Your task to perform on an android device: Open Youtube and go to the subscriptions tab Image 0: 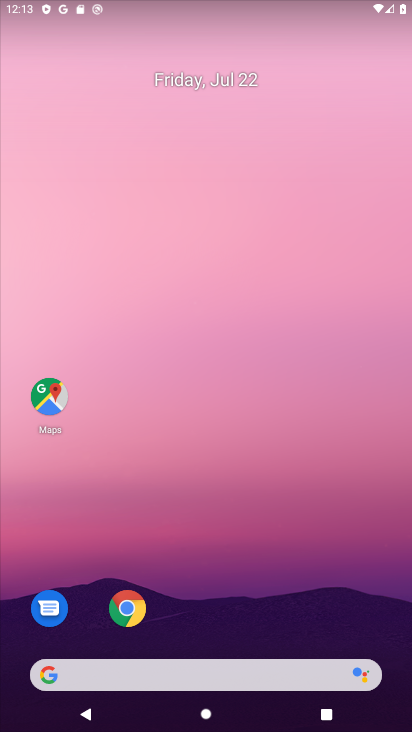
Step 0: press home button
Your task to perform on an android device: Open Youtube and go to the subscriptions tab Image 1: 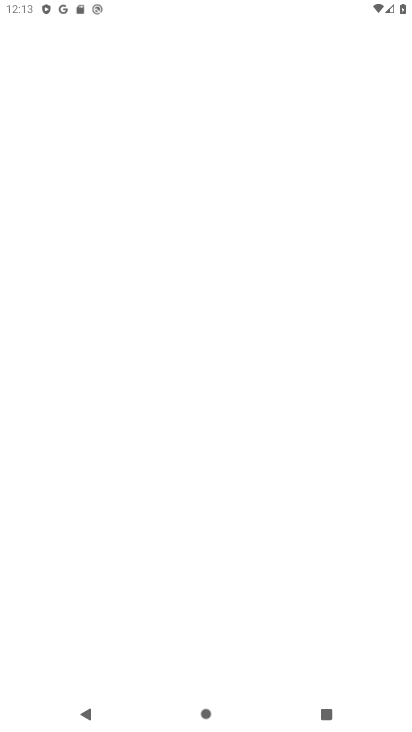
Step 1: drag from (212, 282) to (221, 15)
Your task to perform on an android device: Open Youtube and go to the subscriptions tab Image 2: 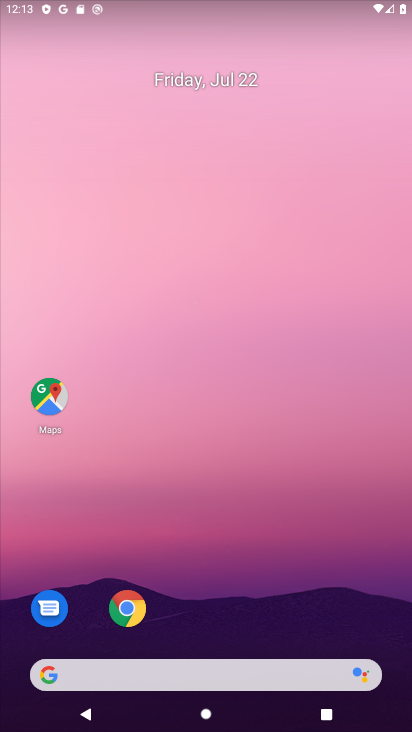
Step 2: drag from (218, 640) to (250, 13)
Your task to perform on an android device: Open Youtube and go to the subscriptions tab Image 3: 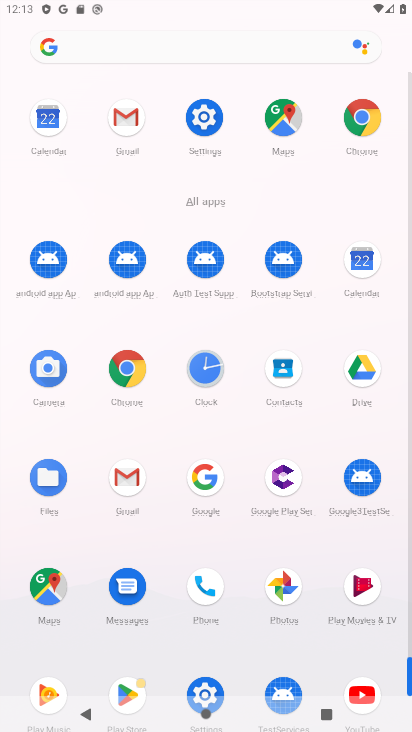
Step 3: drag from (316, 659) to (326, 229)
Your task to perform on an android device: Open Youtube and go to the subscriptions tab Image 4: 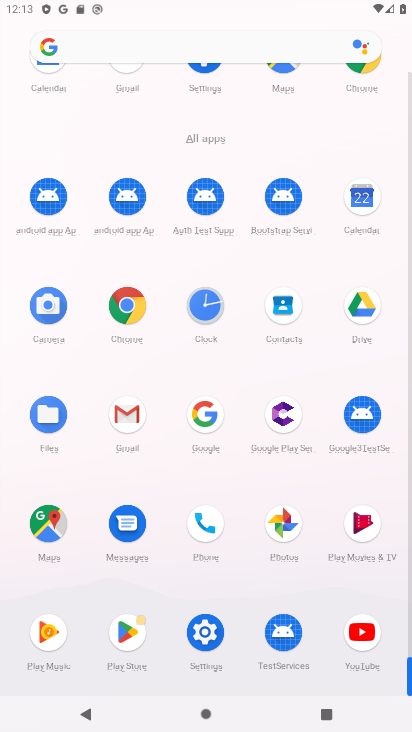
Step 4: click (358, 620)
Your task to perform on an android device: Open Youtube and go to the subscriptions tab Image 5: 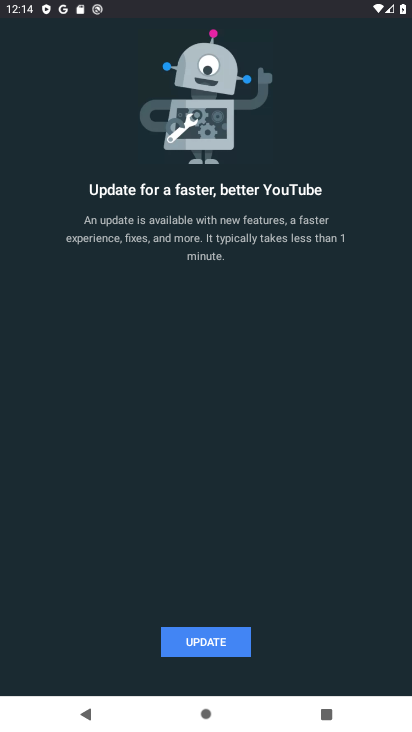
Step 5: click (203, 638)
Your task to perform on an android device: Open Youtube and go to the subscriptions tab Image 6: 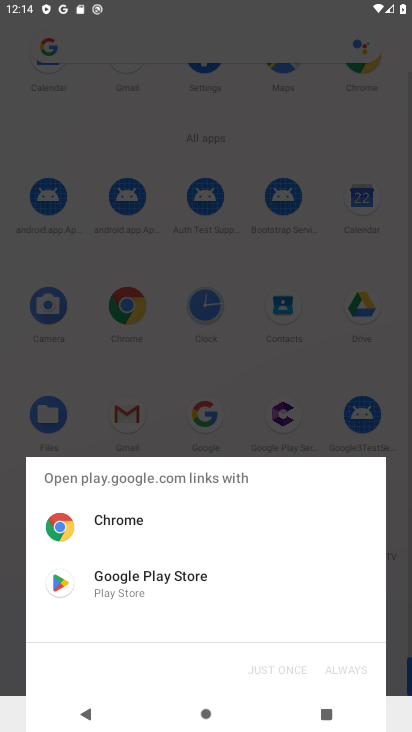
Step 6: click (130, 594)
Your task to perform on an android device: Open Youtube and go to the subscriptions tab Image 7: 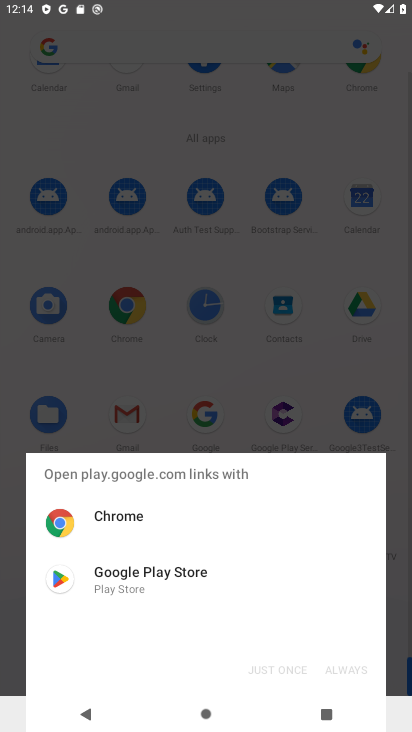
Step 7: click (105, 480)
Your task to perform on an android device: Open Youtube and go to the subscriptions tab Image 8: 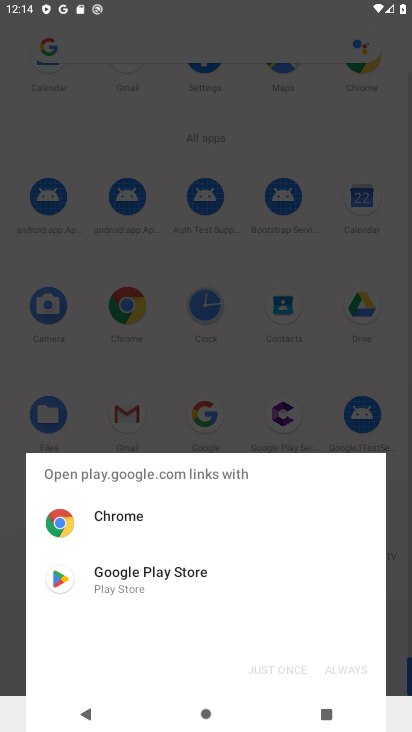
Step 8: click (105, 480)
Your task to perform on an android device: Open Youtube and go to the subscriptions tab Image 9: 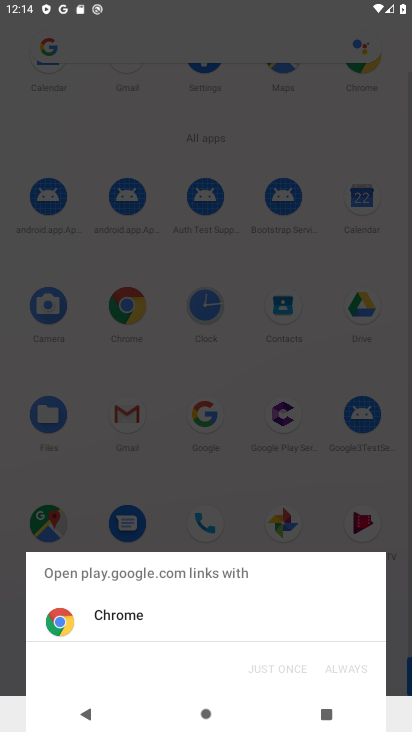
Step 9: click (104, 480)
Your task to perform on an android device: Open Youtube and go to the subscriptions tab Image 10: 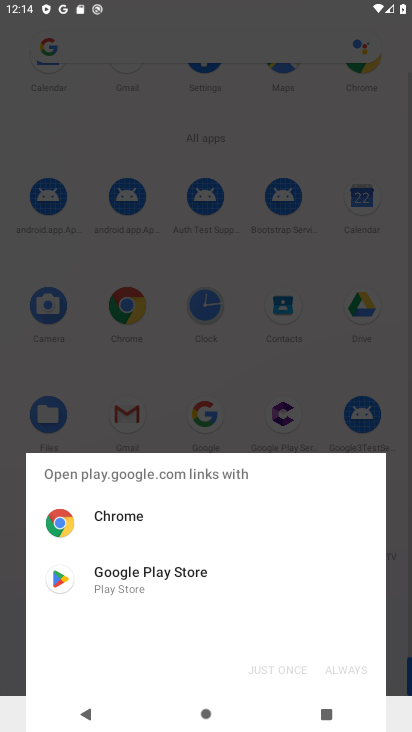
Step 10: click (118, 575)
Your task to perform on an android device: Open Youtube and go to the subscriptions tab Image 11: 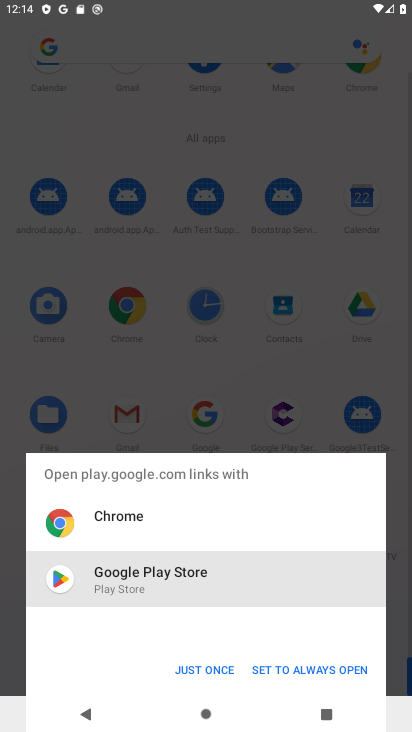
Step 11: click (205, 670)
Your task to perform on an android device: Open Youtube and go to the subscriptions tab Image 12: 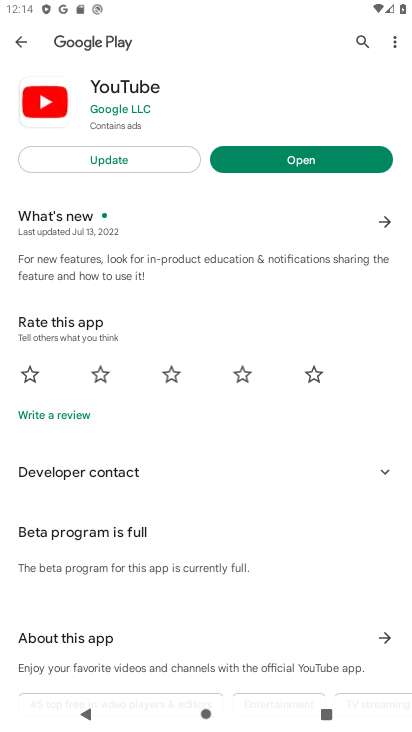
Step 12: click (107, 157)
Your task to perform on an android device: Open Youtube and go to the subscriptions tab Image 13: 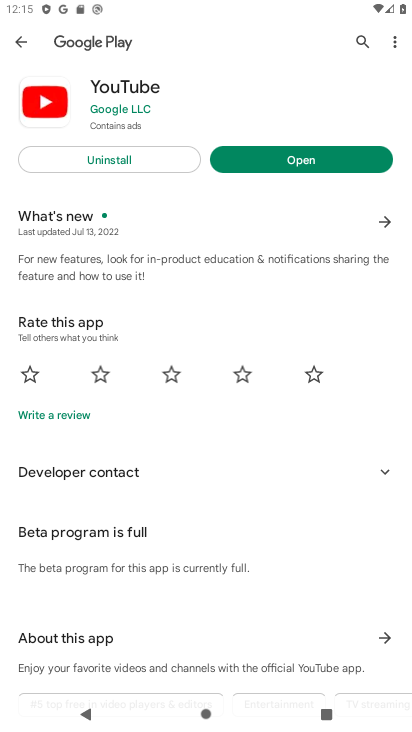
Step 13: click (313, 159)
Your task to perform on an android device: Open Youtube and go to the subscriptions tab Image 14: 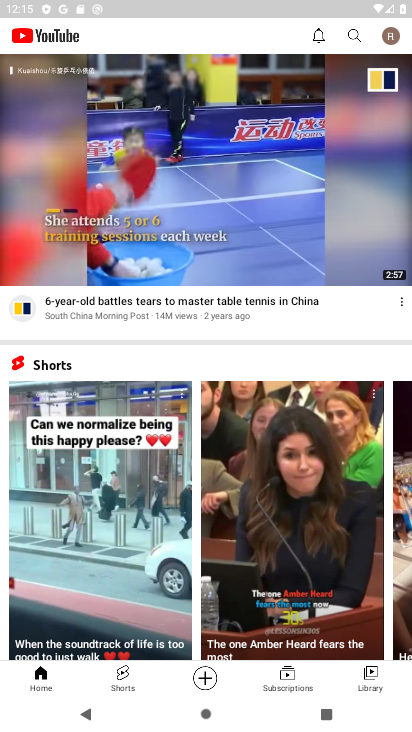
Step 14: click (286, 668)
Your task to perform on an android device: Open Youtube and go to the subscriptions tab Image 15: 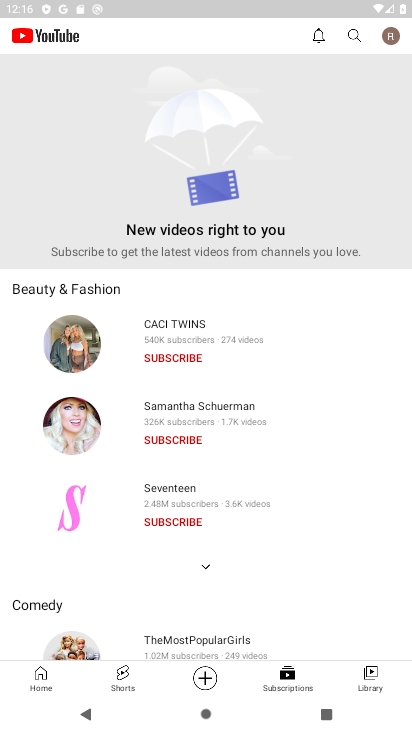
Step 15: task complete